Your task to perform on an android device: Open Wikipedia Image 0: 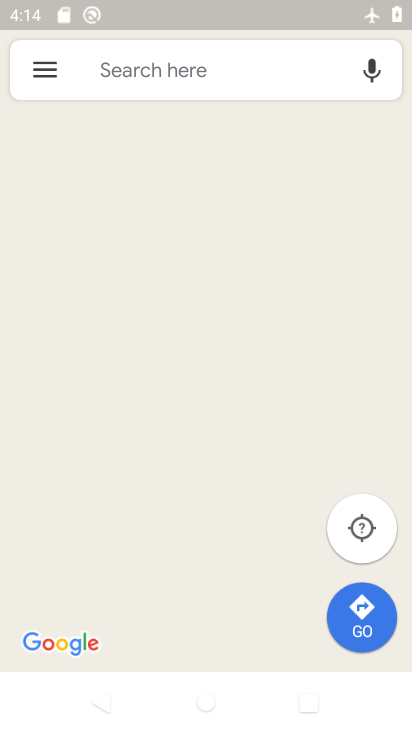
Step 0: press home button
Your task to perform on an android device: Open Wikipedia Image 1: 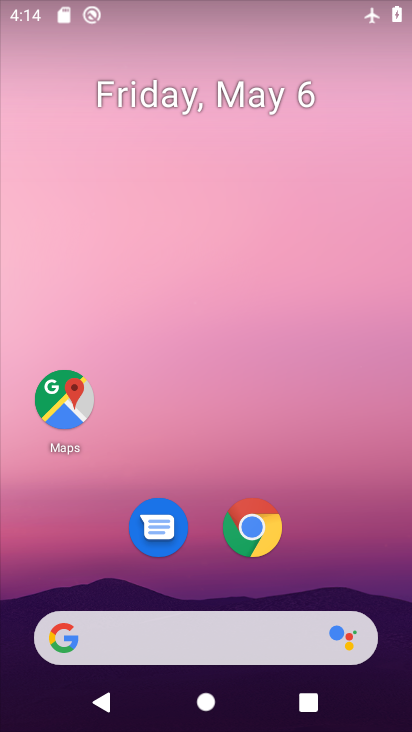
Step 1: drag from (312, 569) to (321, 30)
Your task to perform on an android device: Open Wikipedia Image 2: 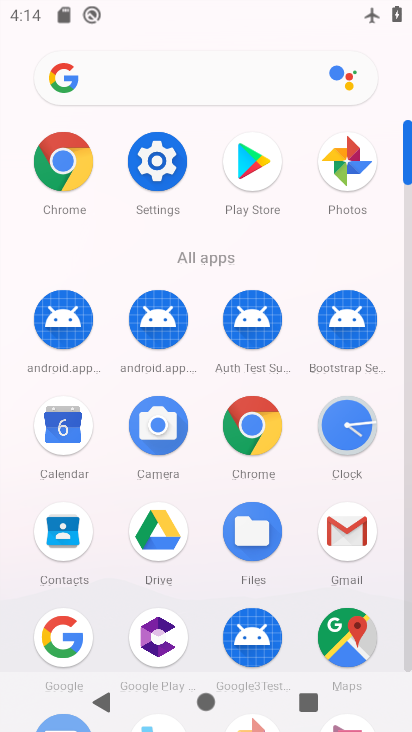
Step 2: click (63, 160)
Your task to perform on an android device: Open Wikipedia Image 3: 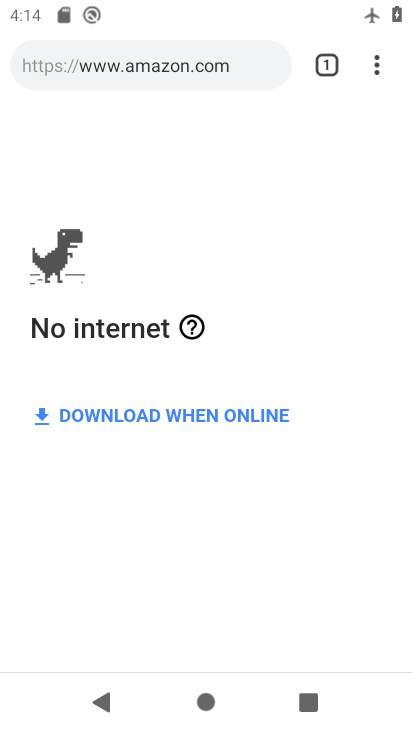
Step 3: click (166, 73)
Your task to perform on an android device: Open Wikipedia Image 4: 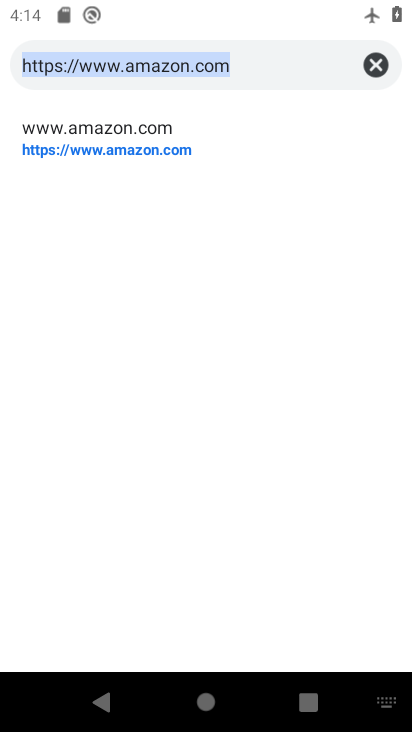
Step 4: type "wikipedia"
Your task to perform on an android device: Open Wikipedia Image 5: 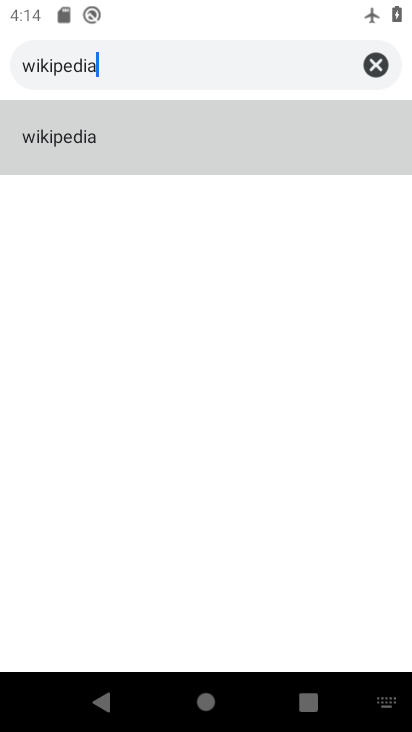
Step 5: click (150, 117)
Your task to perform on an android device: Open Wikipedia Image 6: 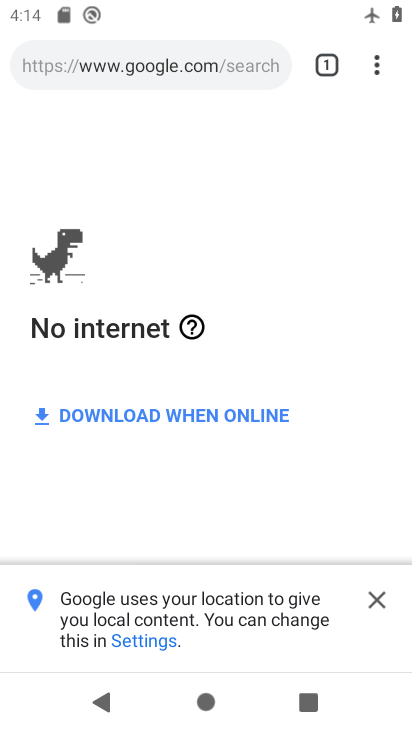
Step 6: task complete